Your task to perform on an android device: turn on sleep mode Image 0: 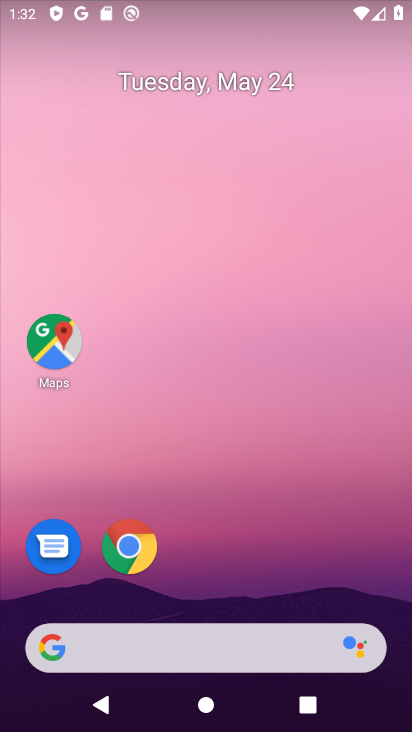
Step 0: drag from (205, 529) to (187, 103)
Your task to perform on an android device: turn on sleep mode Image 1: 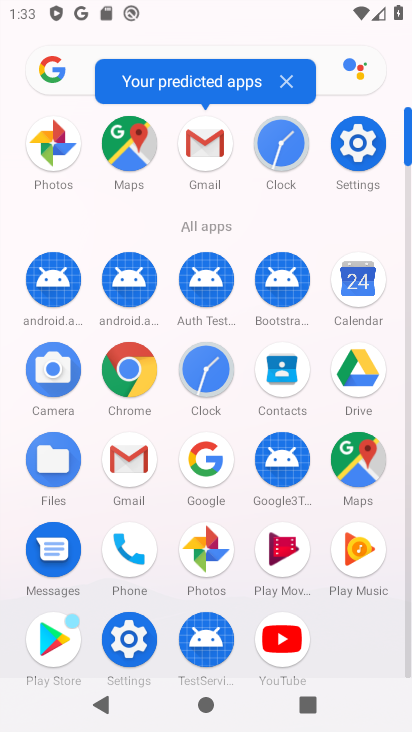
Step 1: click (352, 160)
Your task to perform on an android device: turn on sleep mode Image 2: 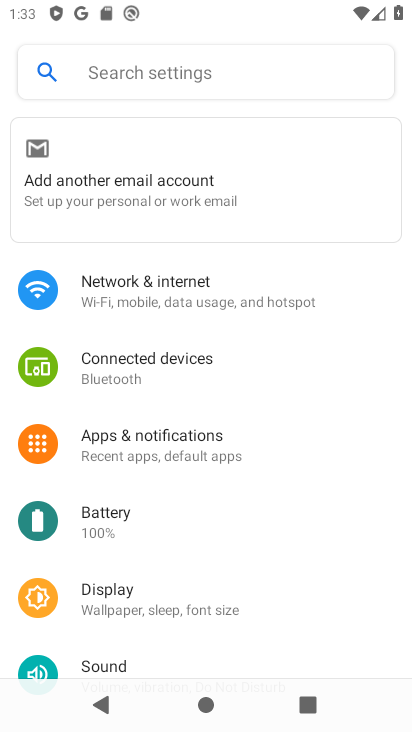
Step 2: click (134, 586)
Your task to perform on an android device: turn on sleep mode Image 3: 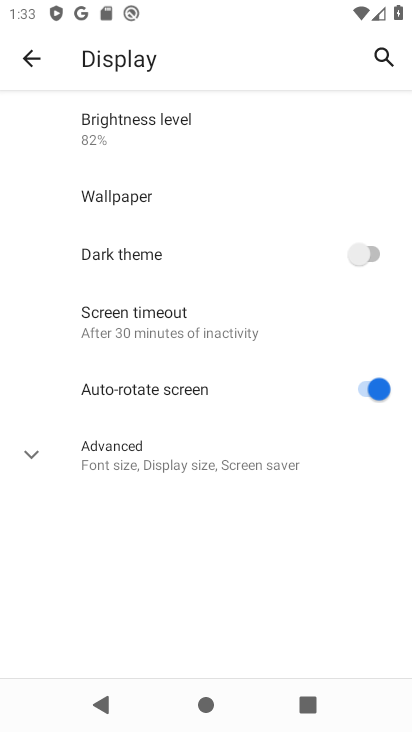
Step 3: click (153, 458)
Your task to perform on an android device: turn on sleep mode Image 4: 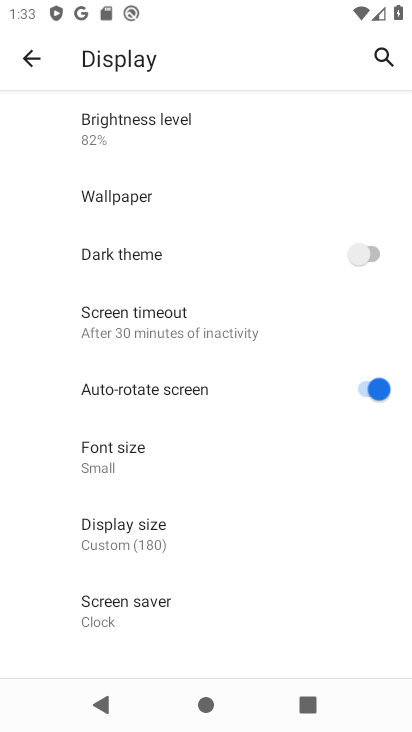
Step 4: task complete